Your task to perform on an android device: Do I have any events this weekend? Image 0: 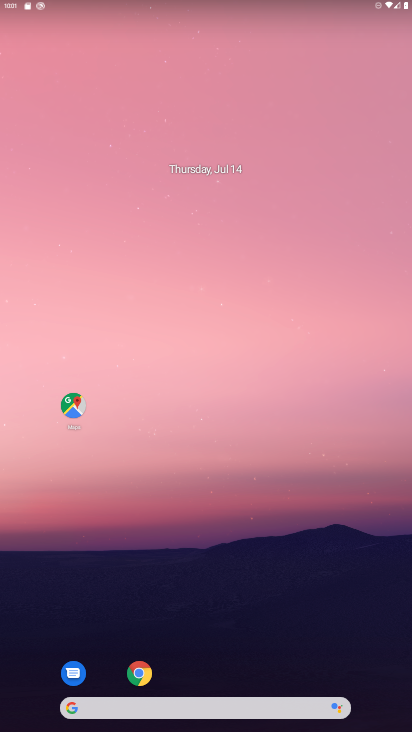
Step 0: drag from (260, 579) to (259, 225)
Your task to perform on an android device: Do I have any events this weekend? Image 1: 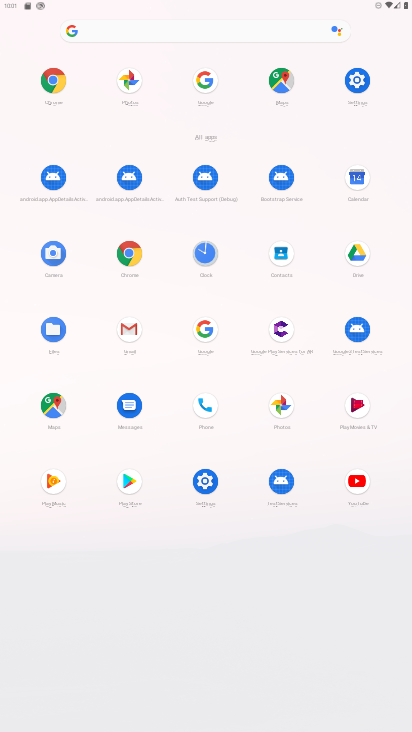
Step 1: click (354, 176)
Your task to perform on an android device: Do I have any events this weekend? Image 2: 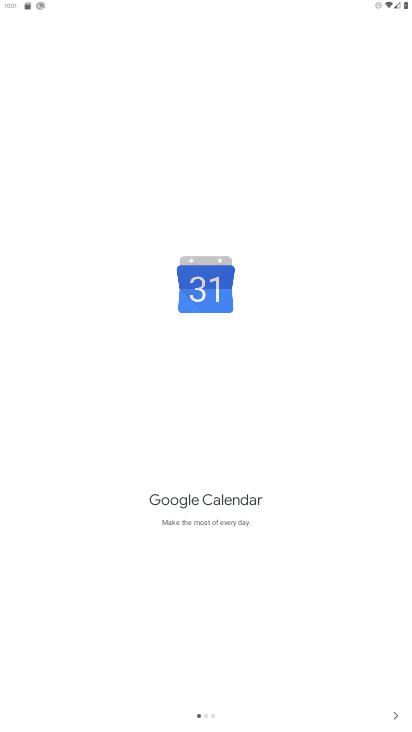
Step 2: click (396, 717)
Your task to perform on an android device: Do I have any events this weekend? Image 3: 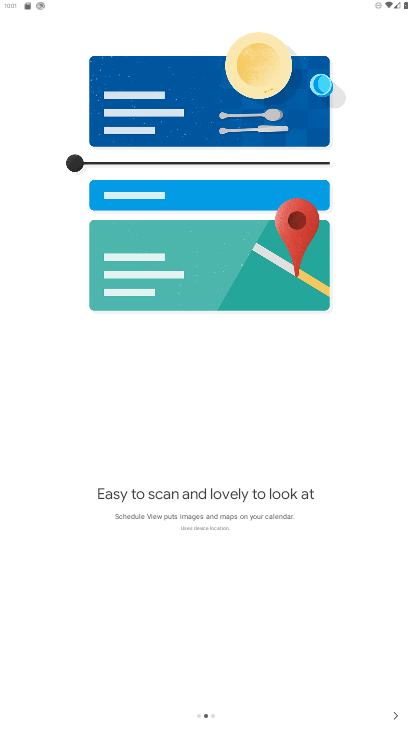
Step 3: click (396, 717)
Your task to perform on an android device: Do I have any events this weekend? Image 4: 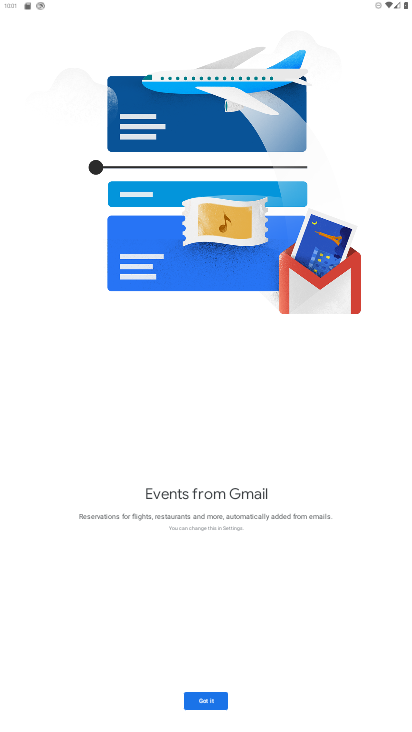
Step 4: click (200, 697)
Your task to perform on an android device: Do I have any events this weekend? Image 5: 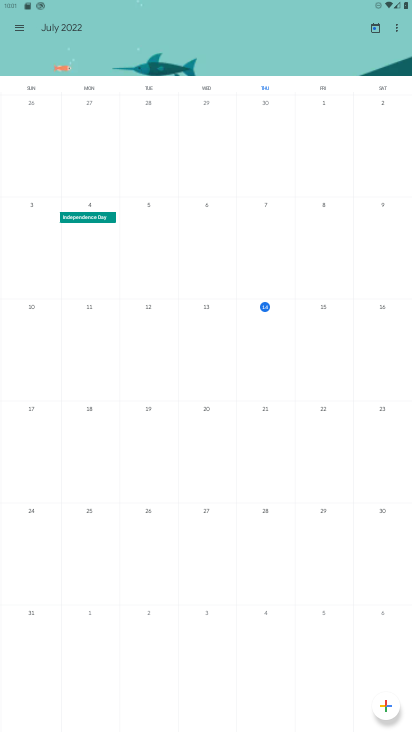
Step 5: click (18, 32)
Your task to perform on an android device: Do I have any events this weekend? Image 6: 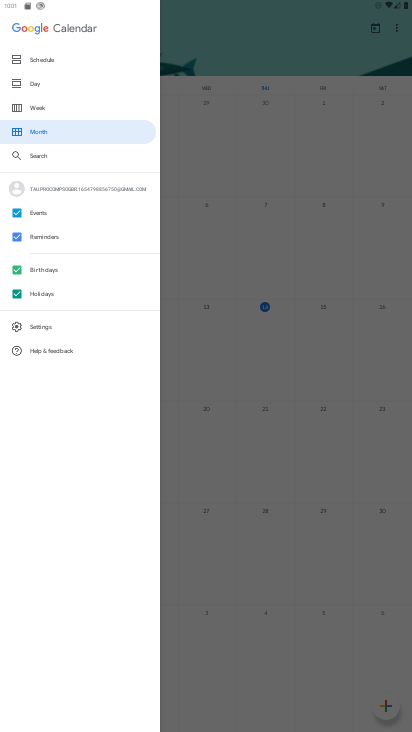
Step 6: click (43, 105)
Your task to perform on an android device: Do I have any events this weekend? Image 7: 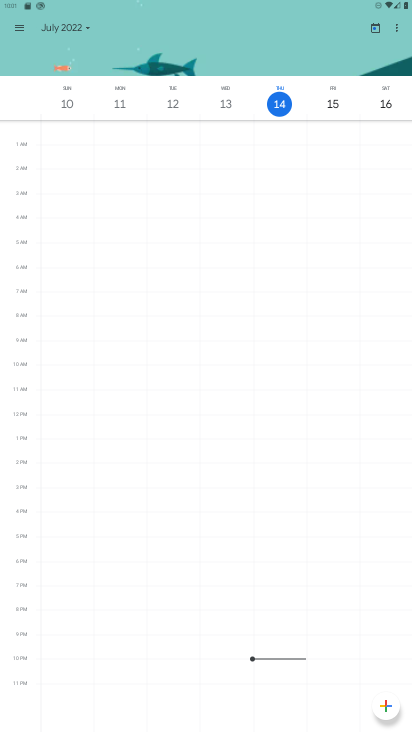
Step 7: task complete